Your task to perform on an android device: change your default location settings in chrome Image 0: 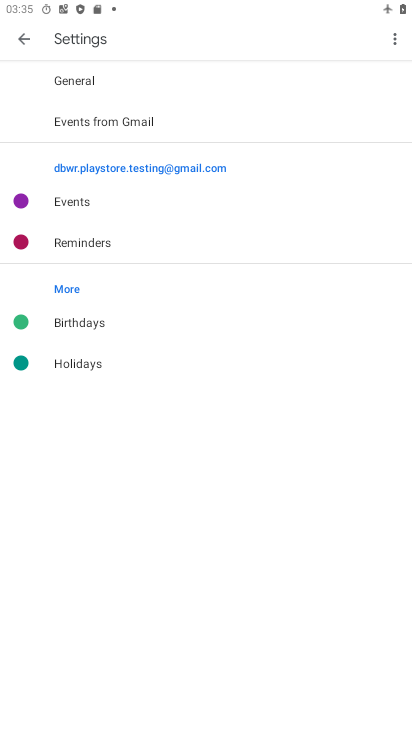
Step 0: press home button
Your task to perform on an android device: change your default location settings in chrome Image 1: 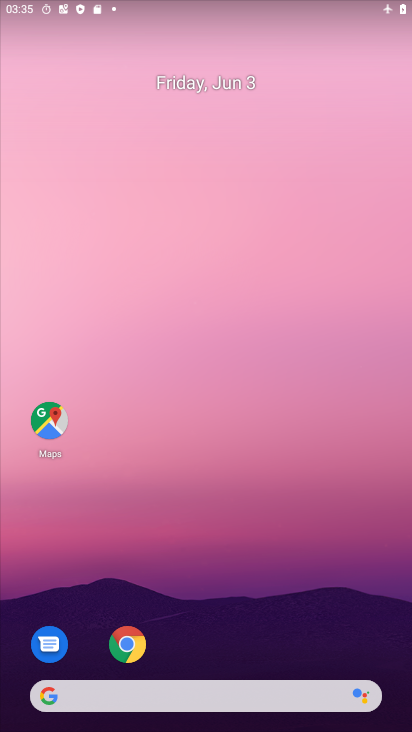
Step 1: click (142, 638)
Your task to perform on an android device: change your default location settings in chrome Image 2: 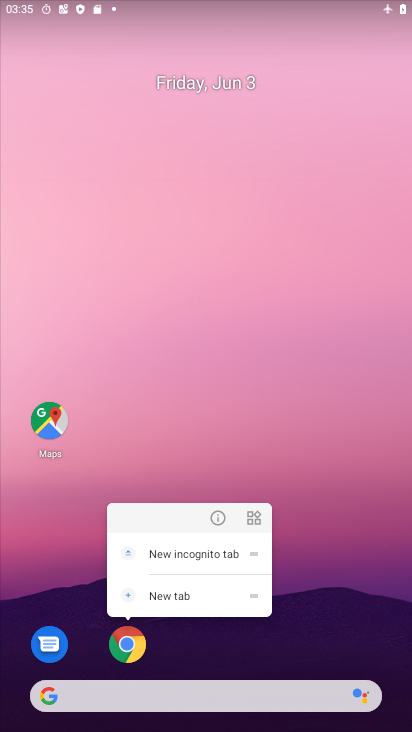
Step 2: click (144, 636)
Your task to perform on an android device: change your default location settings in chrome Image 3: 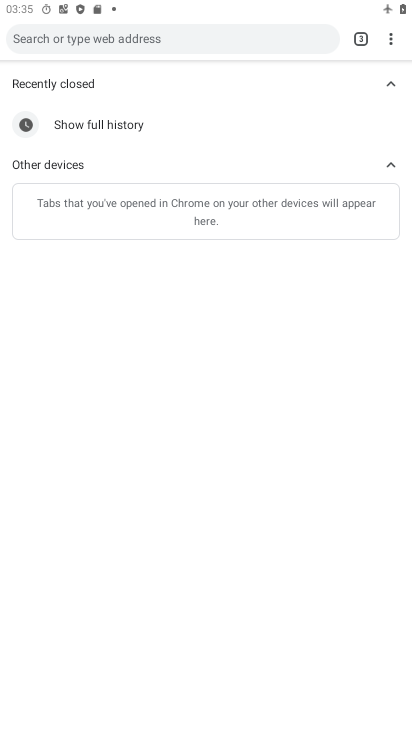
Step 3: click (383, 35)
Your task to perform on an android device: change your default location settings in chrome Image 4: 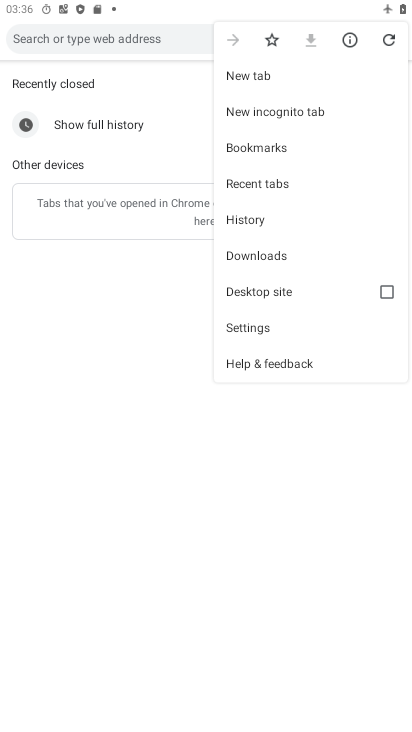
Step 4: click (270, 322)
Your task to perform on an android device: change your default location settings in chrome Image 5: 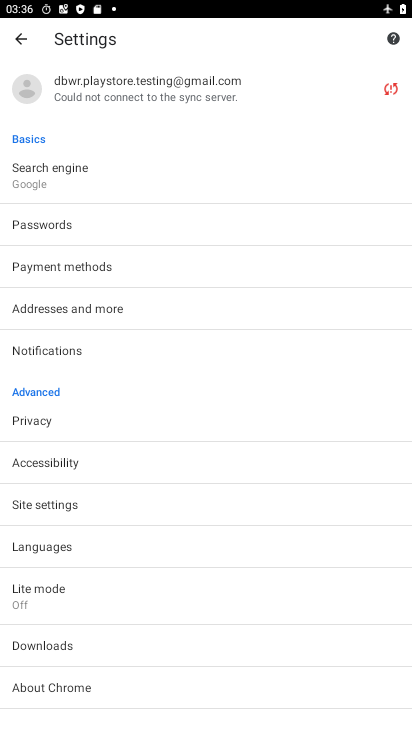
Step 5: click (98, 516)
Your task to perform on an android device: change your default location settings in chrome Image 6: 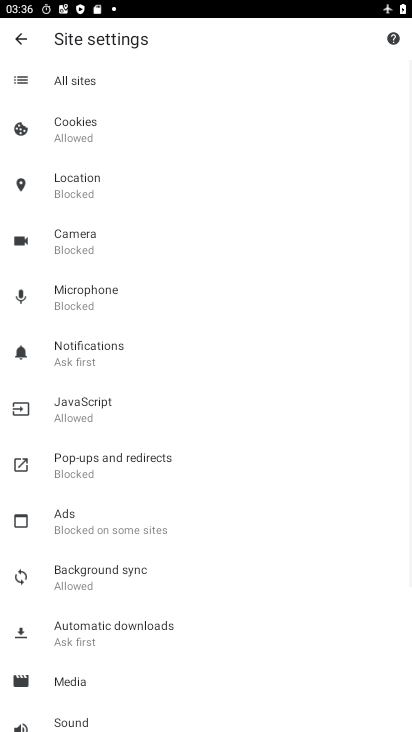
Step 6: click (94, 199)
Your task to perform on an android device: change your default location settings in chrome Image 7: 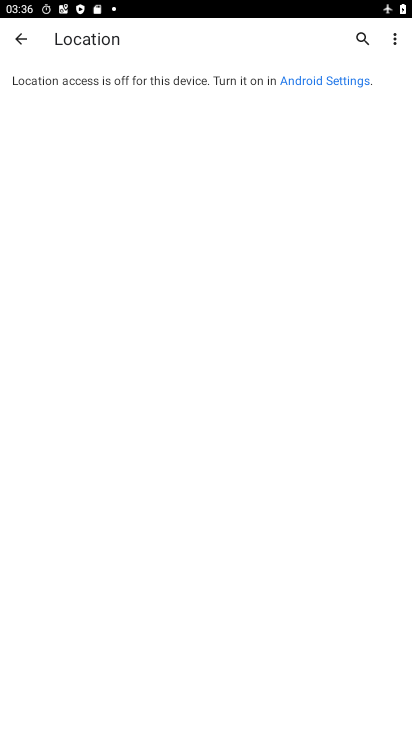
Step 7: click (304, 84)
Your task to perform on an android device: change your default location settings in chrome Image 8: 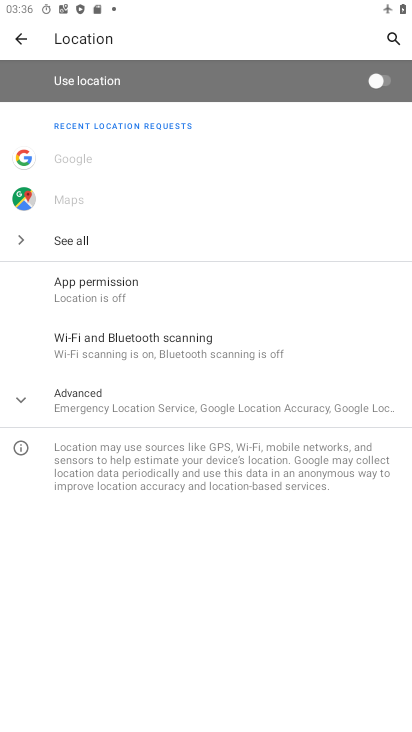
Step 8: click (388, 73)
Your task to perform on an android device: change your default location settings in chrome Image 9: 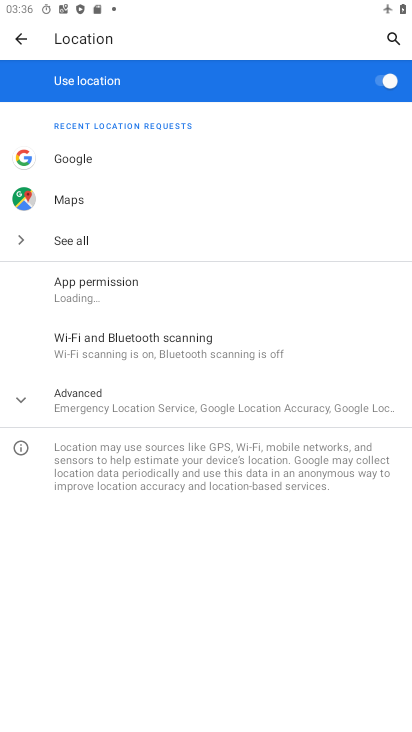
Step 9: click (22, 34)
Your task to perform on an android device: change your default location settings in chrome Image 10: 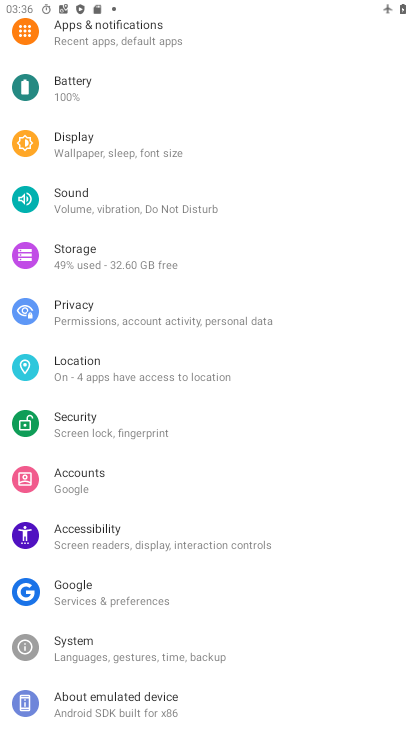
Step 10: task complete